Your task to perform on an android device: Show me recent news Image 0: 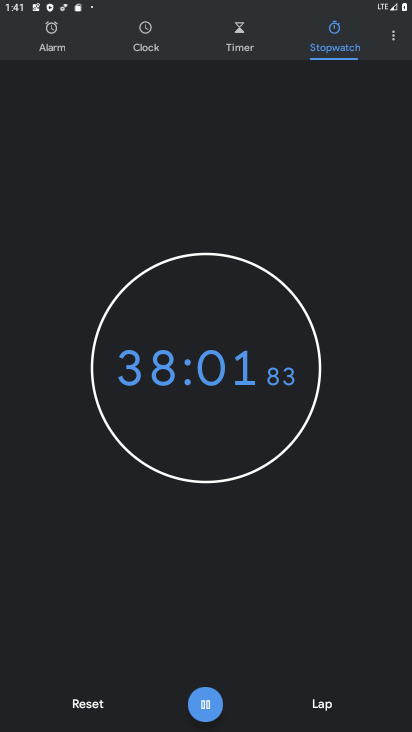
Step 0: press home button
Your task to perform on an android device: Show me recent news Image 1: 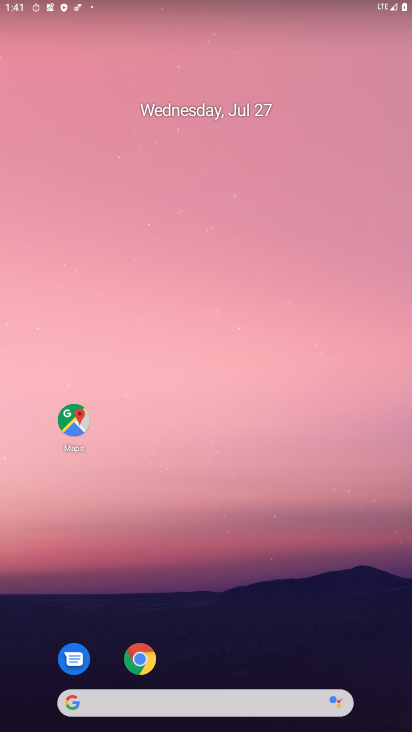
Step 1: drag from (251, 626) to (290, 45)
Your task to perform on an android device: Show me recent news Image 2: 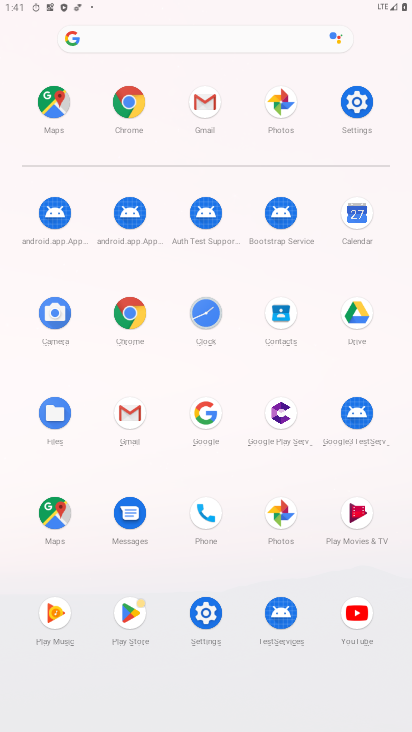
Step 2: click (125, 306)
Your task to perform on an android device: Show me recent news Image 3: 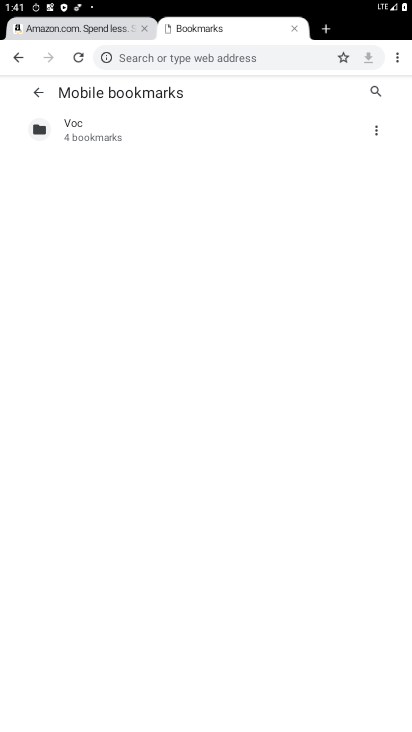
Step 3: click (221, 54)
Your task to perform on an android device: Show me recent news Image 4: 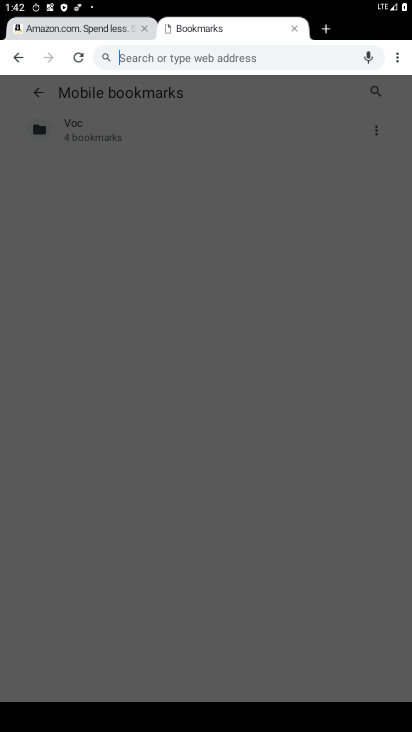
Step 4: type "Show me recent news"
Your task to perform on an android device: Show me recent news Image 5: 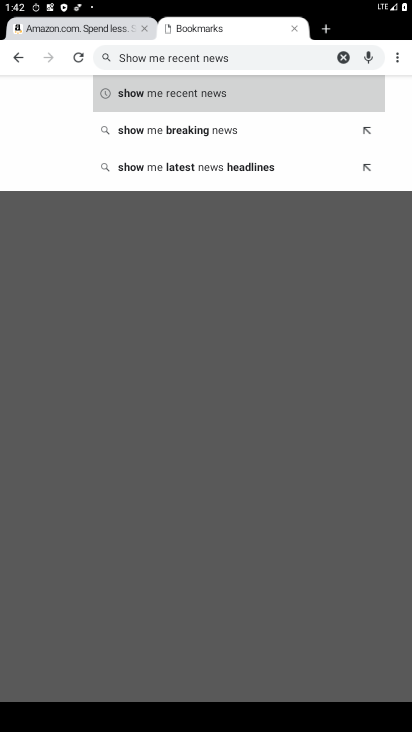
Step 5: click (154, 95)
Your task to perform on an android device: Show me recent news Image 6: 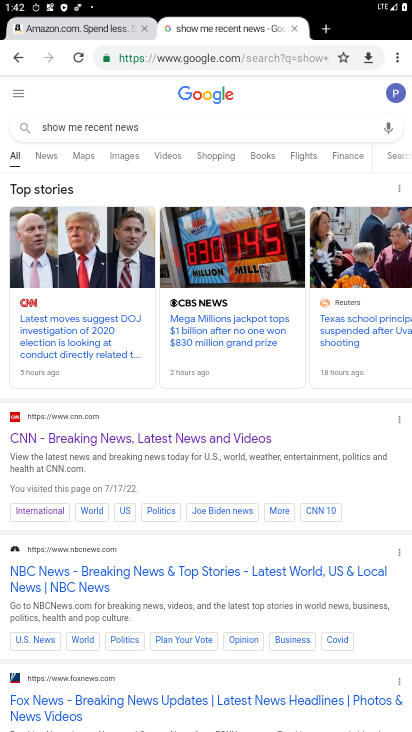
Step 6: task complete